Your task to perform on an android device: empty trash in google photos Image 0: 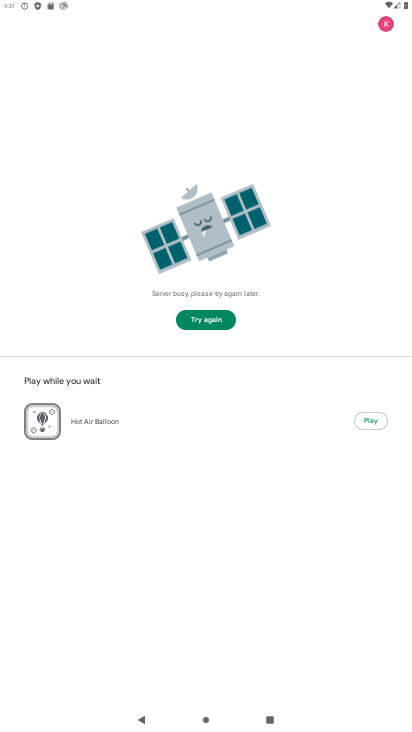
Step 0: press home button
Your task to perform on an android device: empty trash in google photos Image 1: 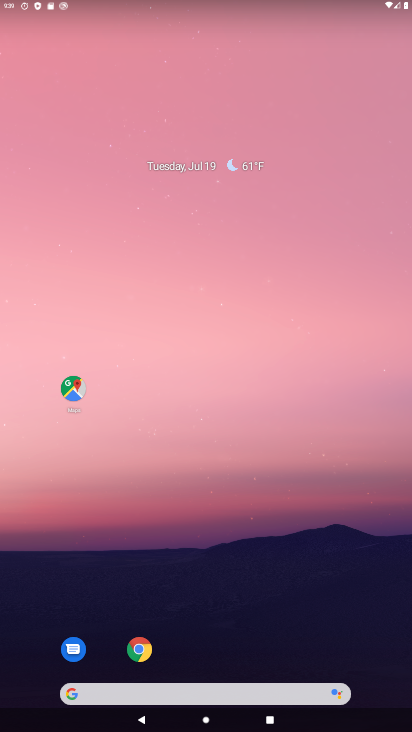
Step 1: drag from (251, 608) to (219, 159)
Your task to perform on an android device: empty trash in google photos Image 2: 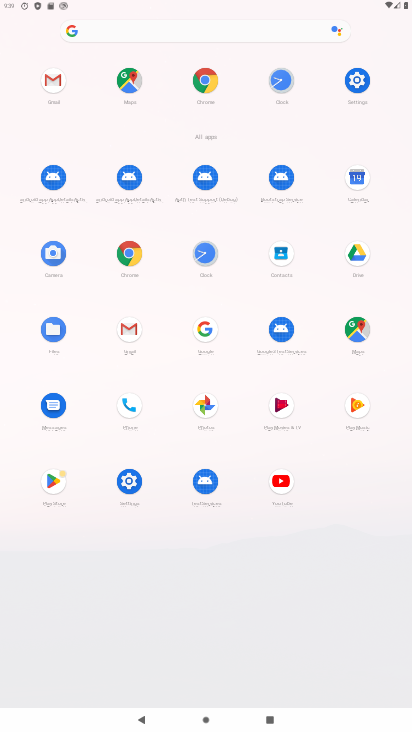
Step 2: click (204, 409)
Your task to perform on an android device: empty trash in google photos Image 3: 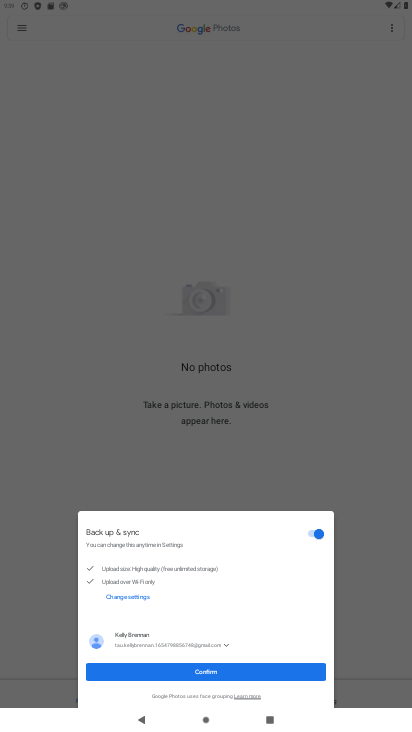
Step 3: click (188, 674)
Your task to perform on an android device: empty trash in google photos Image 4: 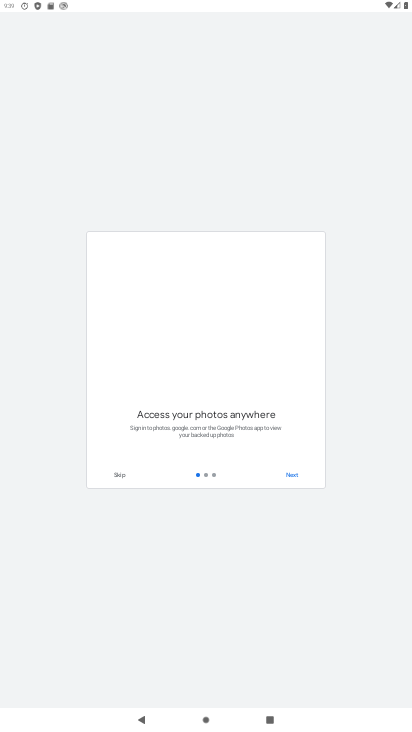
Step 4: click (295, 473)
Your task to perform on an android device: empty trash in google photos Image 5: 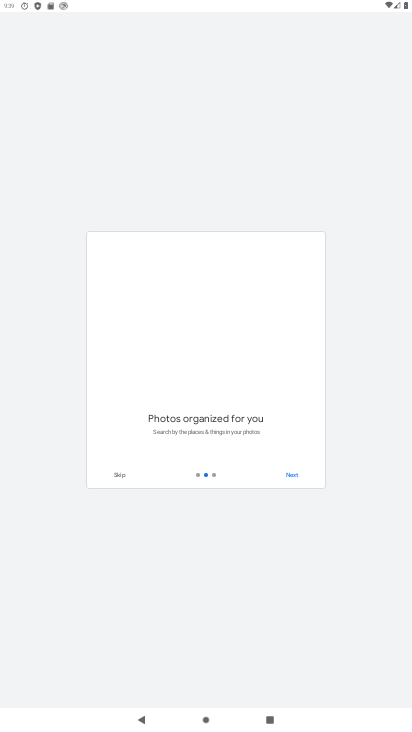
Step 5: click (295, 473)
Your task to perform on an android device: empty trash in google photos Image 6: 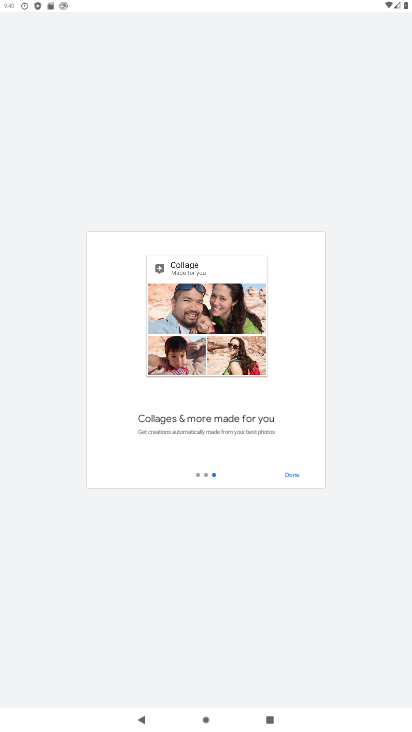
Step 6: click (296, 469)
Your task to perform on an android device: empty trash in google photos Image 7: 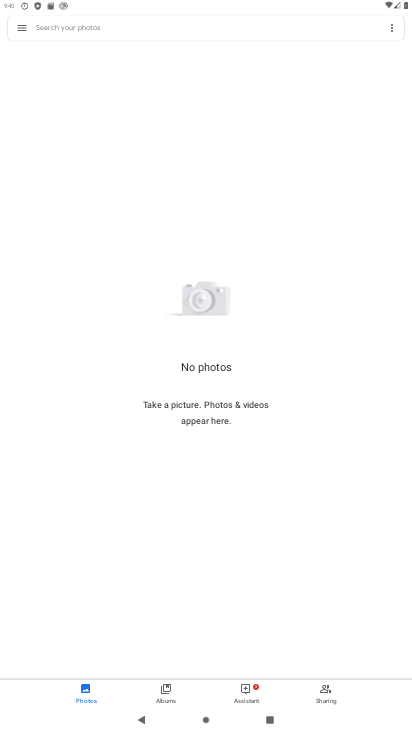
Step 7: click (20, 23)
Your task to perform on an android device: empty trash in google photos Image 8: 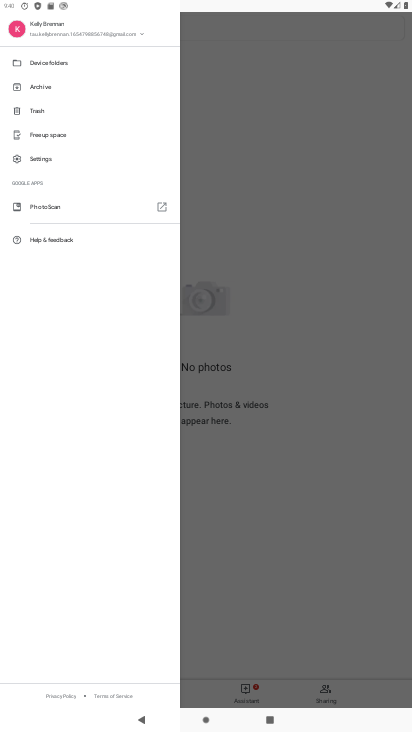
Step 8: click (43, 107)
Your task to perform on an android device: empty trash in google photos Image 9: 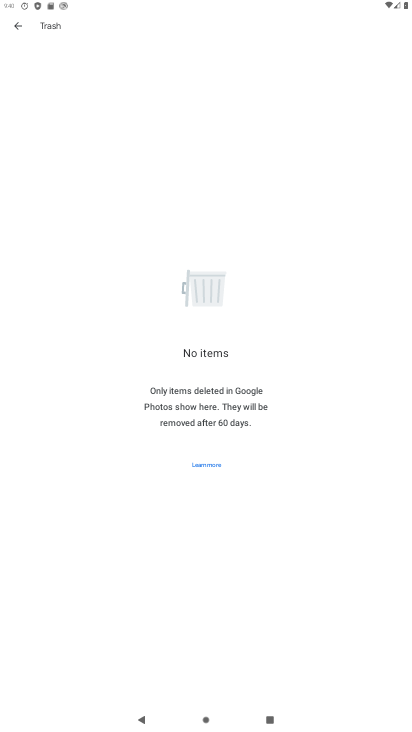
Step 9: task complete